Your task to perform on an android device: turn notification dots off Image 0: 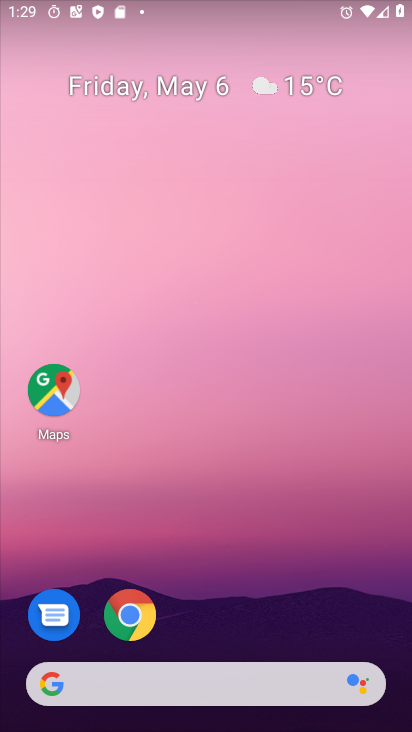
Step 0: drag from (324, 581) to (330, 45)
Your task to perform on an android device: turn notification dots off Image 1: 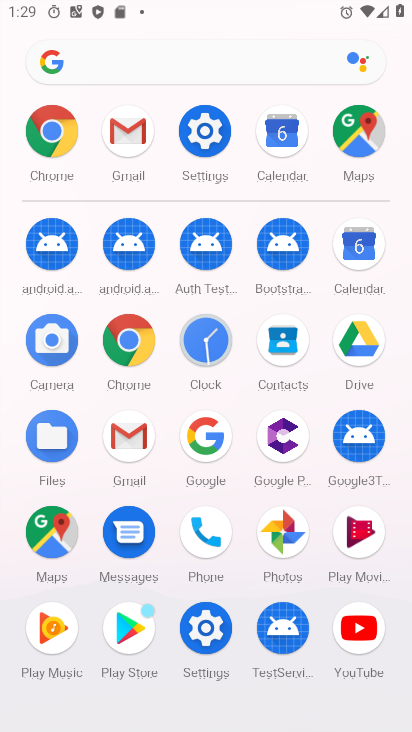
Step 1: click (208, 129)
Your task to perform on an android device: turn notification dots off Image 2: 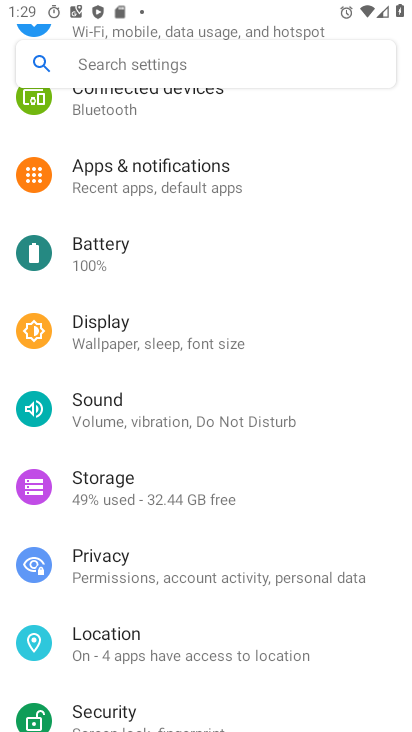
Step 2: click (236, 185)
Your task to perform on an android device: turn notification dots off Image 3: 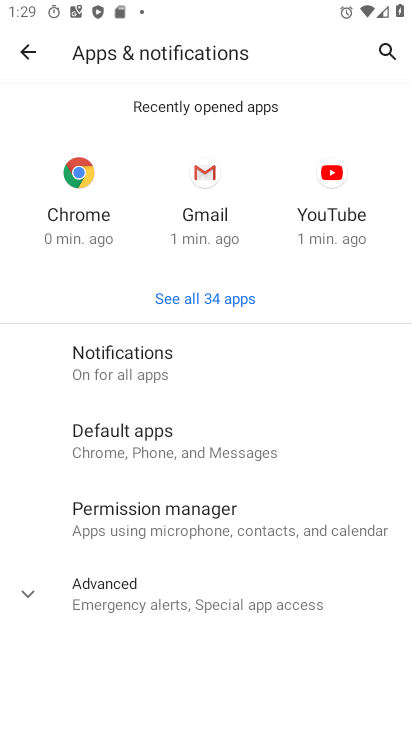
Step 3: click (147, 359)
Your task to perform on an android device: turn notification dots off Image 4: 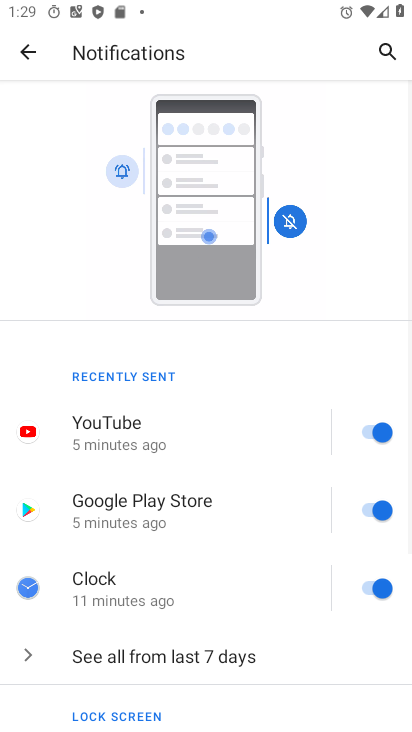
Step 4: drag from (232, 586) to (287, 208)
Your task to perform on an android device: turn notification dots off Image 5: 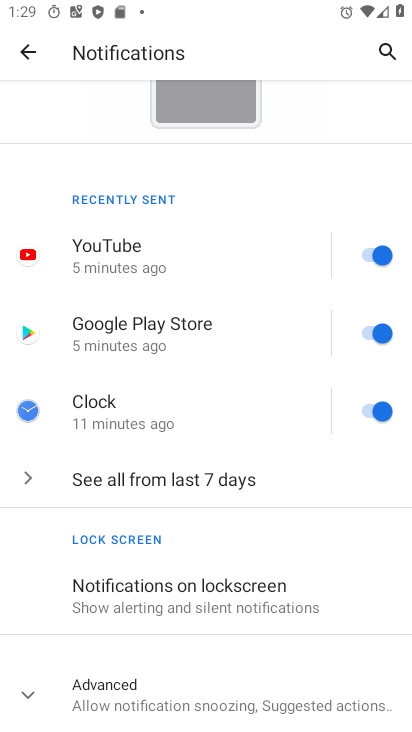
Step 5: click (25, 695)
Your task to perform on an android device: turn notification dots off Image 6: 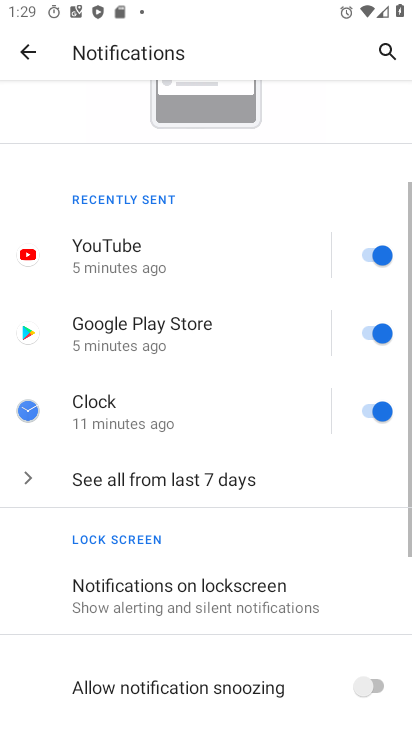
Step 6: drag from (173, 623) to (227, 267)
Your task to perform on an android device: turn notification dots off Image 7: 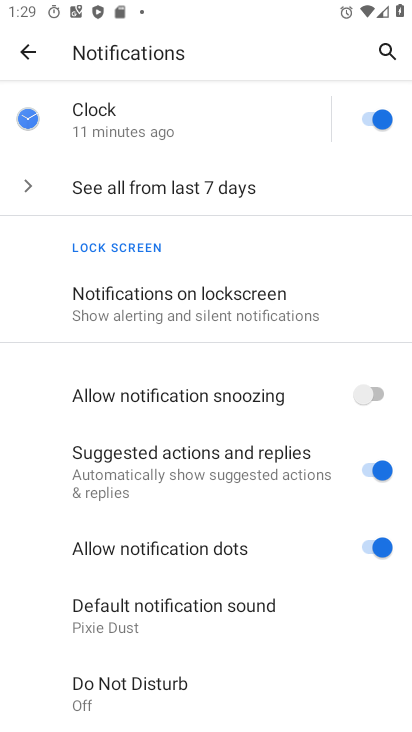
Step 7: click (379, 547)
Your task to perform on an android device: turn notification dots off Image 8: 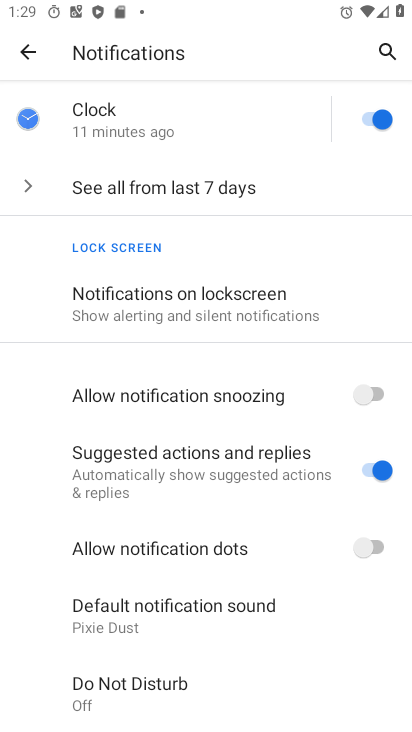
Step 8: task complete